Your task to perform on an android device: open sync settings in chrome Image 0: 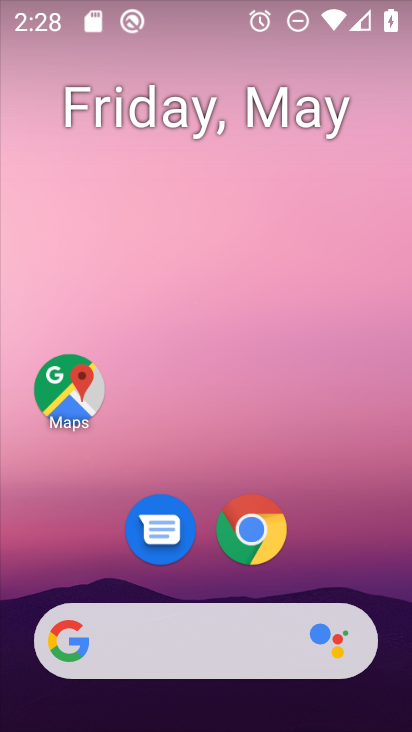
Step 0: click (252, 539)
Your task to perform on an android device: open sync settings in chrome Image 1: 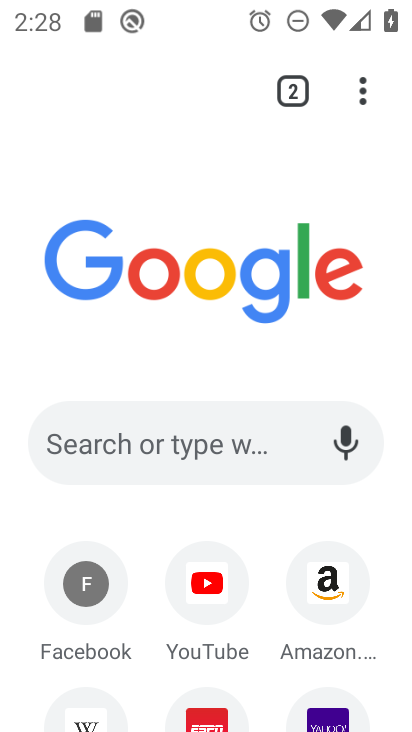
Step 1: click (362, 90)
Your task to perform on an android device: open sync settings in chrome Image 2: 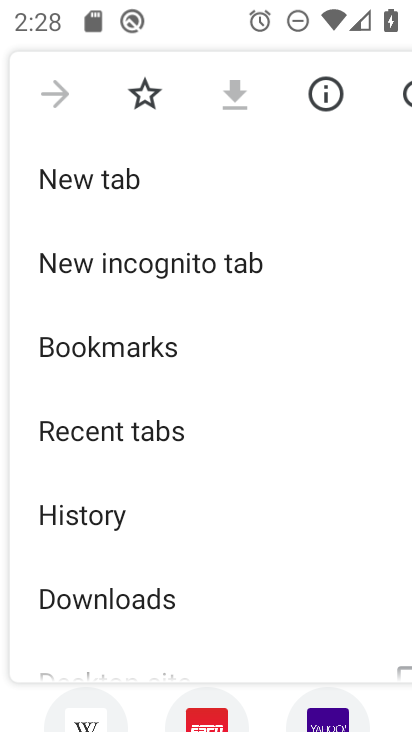
Step 2: drag from (242, 625) to (251, 322)
Your task to perform on an android device: open sync settings in chrome Image 3: 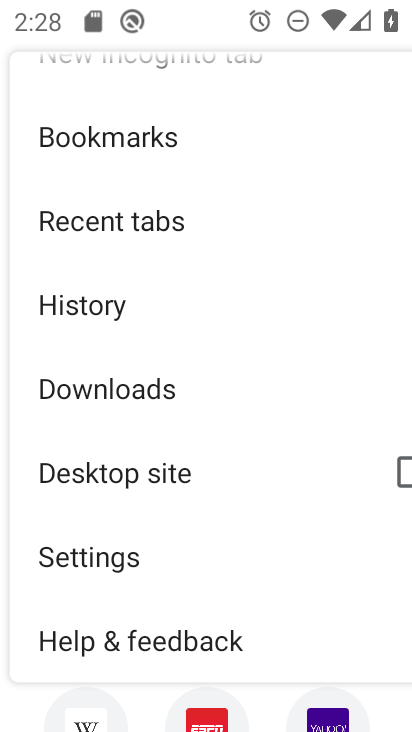
Step 3: drag from (273, 606) to (262, 277)
Your task to perform on an android device: open sync settings in chrome Image 4: 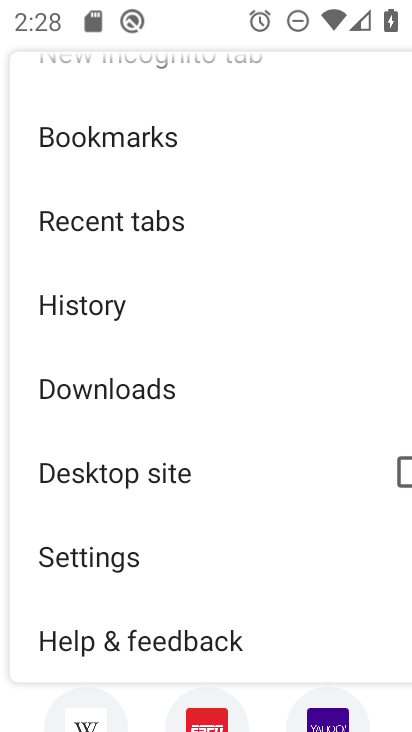
Step 4: drag from (257, 612) to (231, 261)
Your task to perform on an android device: open sync settings in chrome Image 5: 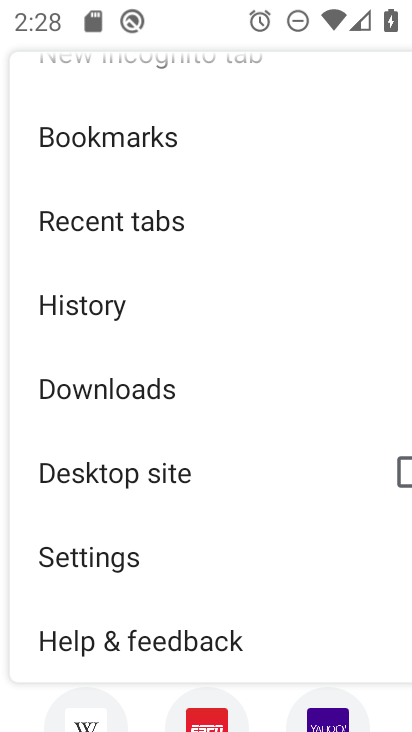
Step 5: drag from (276, 624) to (233, 262)
Your task to perform on an android device: open sync settings in chrome Image 6: 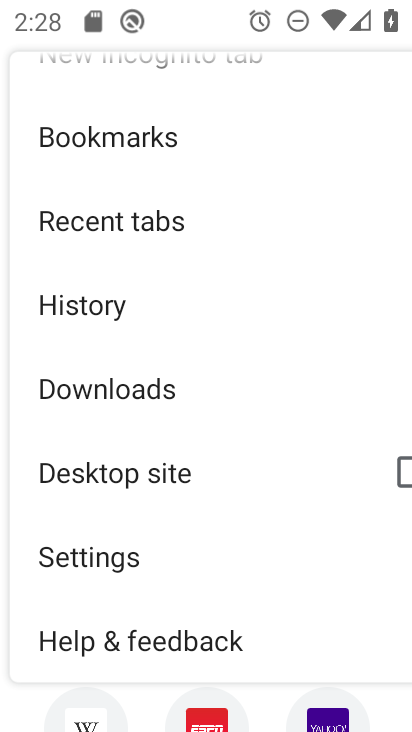
Step 6: click (87, 551)
Your task to perform on an android device: open sync settings in chrome Image 7: 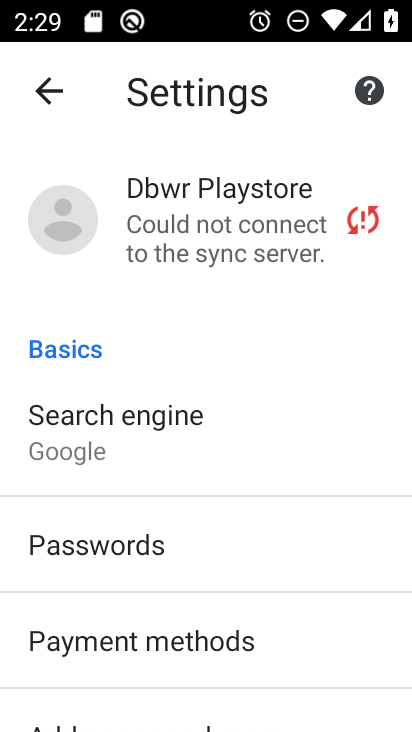
Step 7: drag from (292, 705) to (300, 411)
Your task to perform on an android device: open sync settings in chrome Image 8: 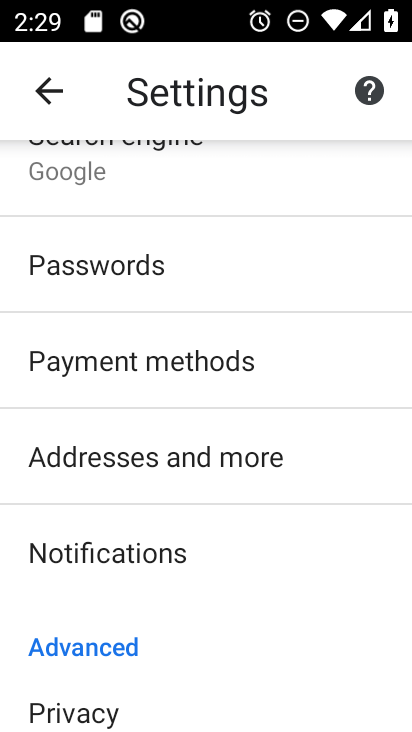
Step 8: drag from (246, 609) to (247, 361)
Your task to perform on an android device: open sync settings in chrome Image 9: 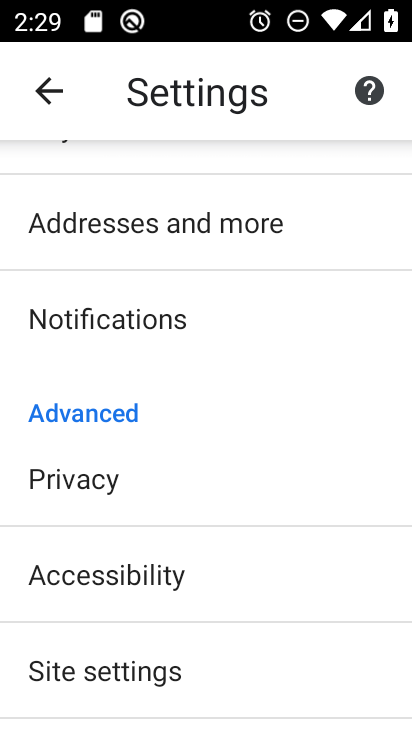
Step 9: click (92, 672)
Your task to perform on an android device: open sync settings in chrome Image 10: 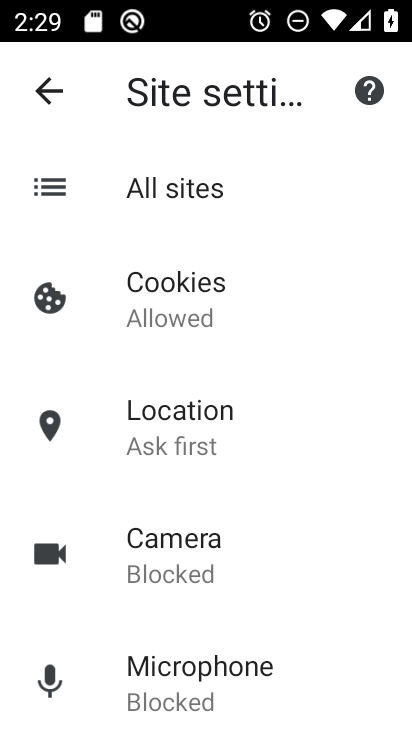
Step 10: drag from (301, 696) to (285, 319)
Your task to perform on an android device: open sync settings in chrome Image 11: 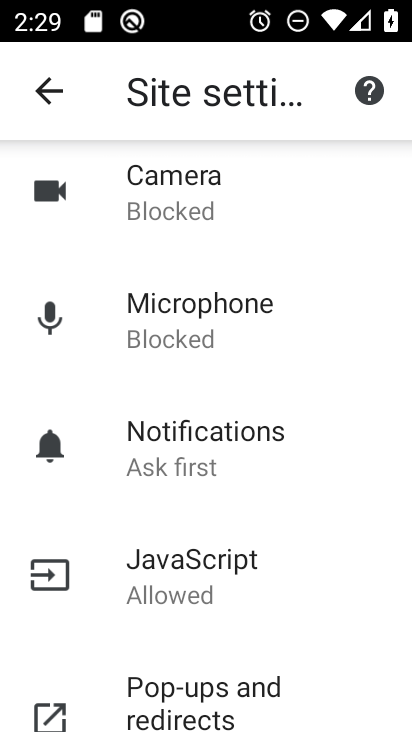
Step 11: drag from (323, 686) to (325, 344)
Your task to perform on an android device: open sync settings in chrome Image 12: 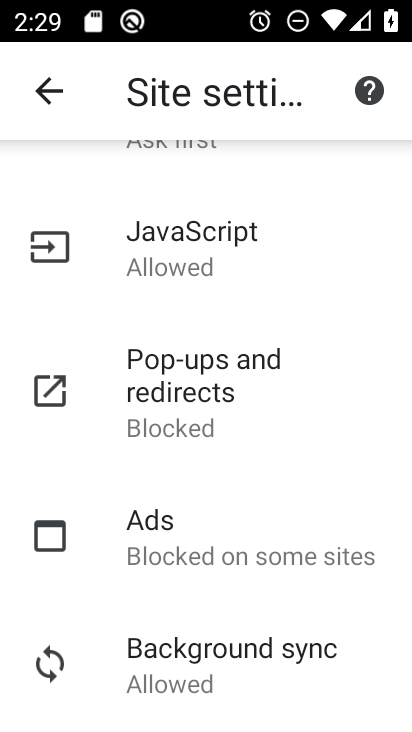
Step 12: click (221, 663)
Your task to perform on an android device: open sync settings in chrome Image 13: 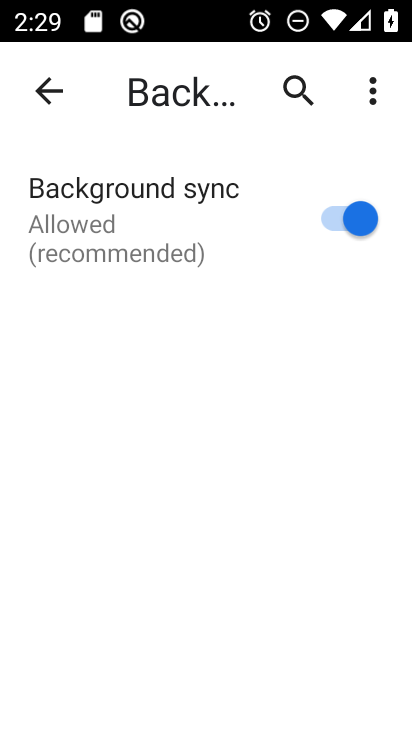
Step 13: task complete